Your task to perform on an android device: Open Yahoo.com Image 0: 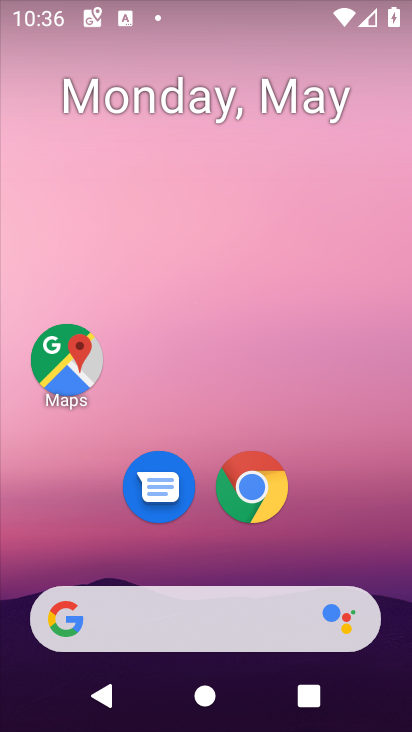
Step 0: click (247, 495)
Your task to perform on an android device: Open Yahoo.com Image 1: 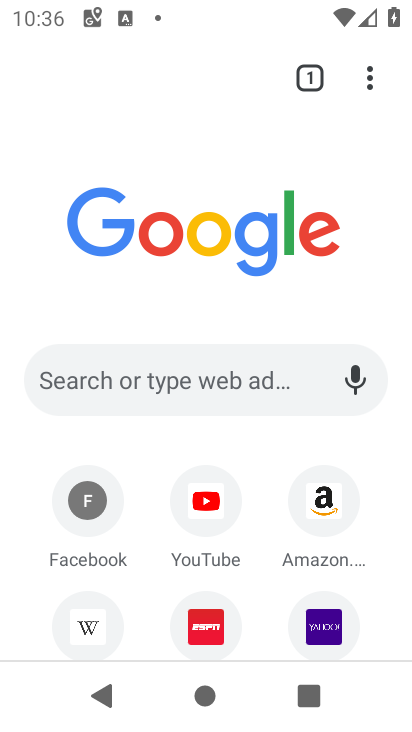
Step 1: click (367, 81)
Your task to perform on an android device: Open Yahoo.com Image 2: 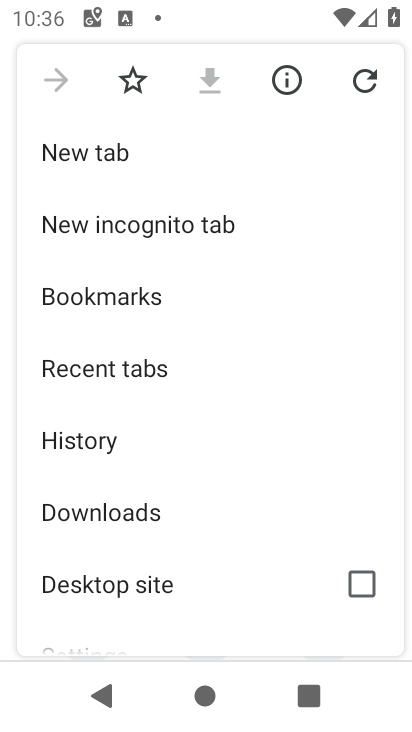
Step 2: press home button
Your task to perform on an android device: Open Yahoo.com Image 3: 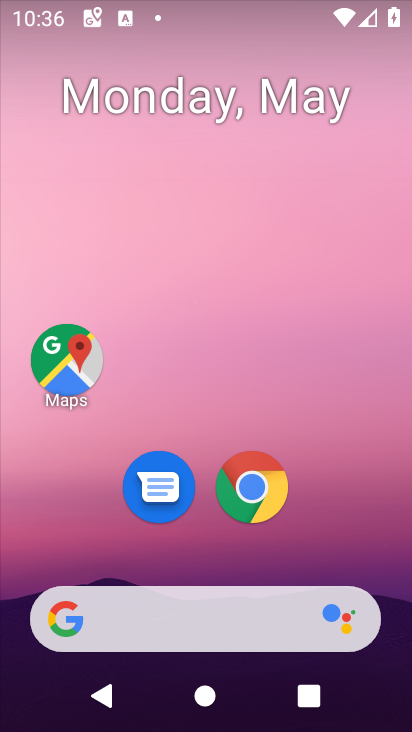
Step 3: click (243, 490)
Your task to perform on an android device: Open Yahoo.com Image 4: 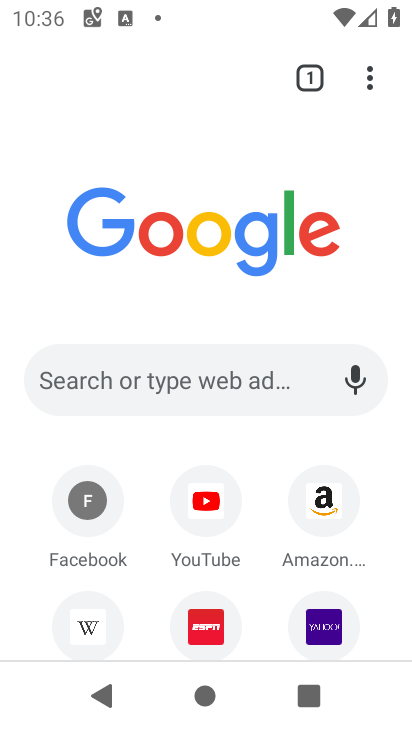
Step 4: drag from (273, 586) to (275, 284)
Your task to perform on an android device: Open Yahoo.com Image 5: 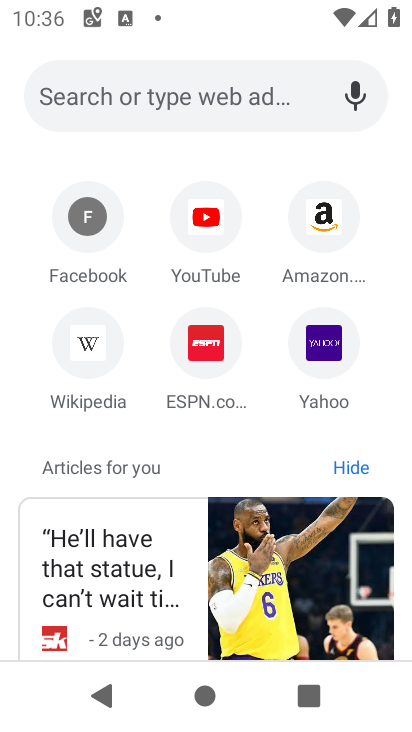
Step 5: click (327, 334)
Your task to perform on an android device: Open Yahoo.com Image 6: 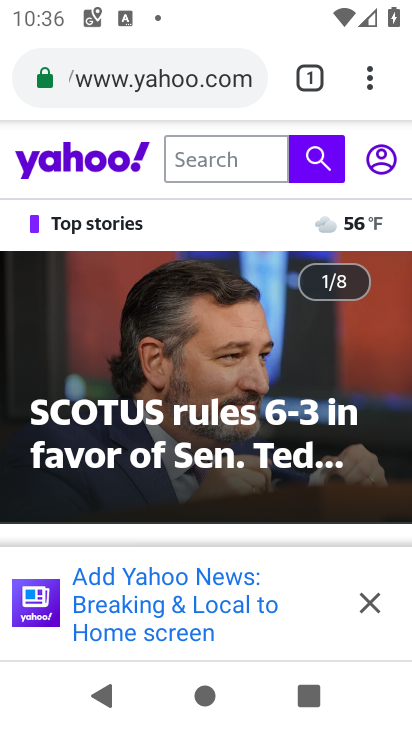
Step 6: task complete